Your task to perform on an android device: Open CNN.com Image 0: 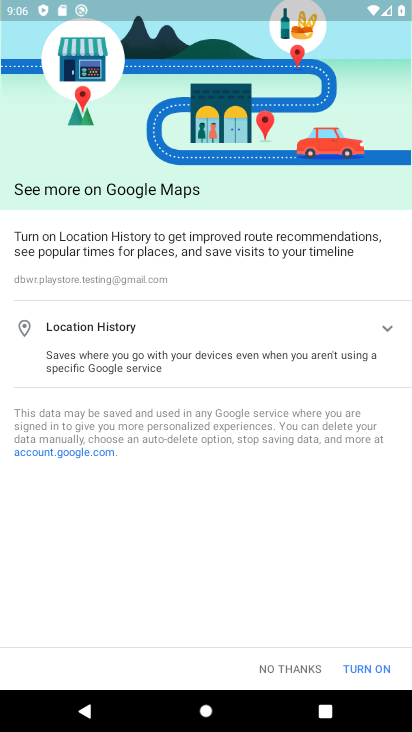
Step 0: press home button
Your task to perform on an android device: Open CNN.com Image 1: 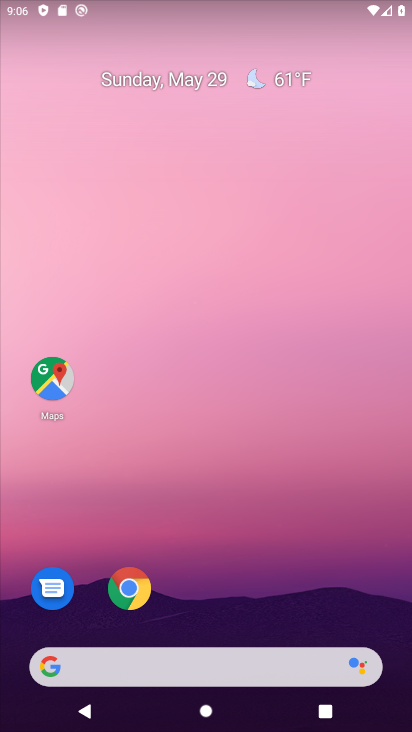
Step 1: drag from (350, 527) to (288, 165)
Your task to perform on an android device: Open CNN.com Image 2: 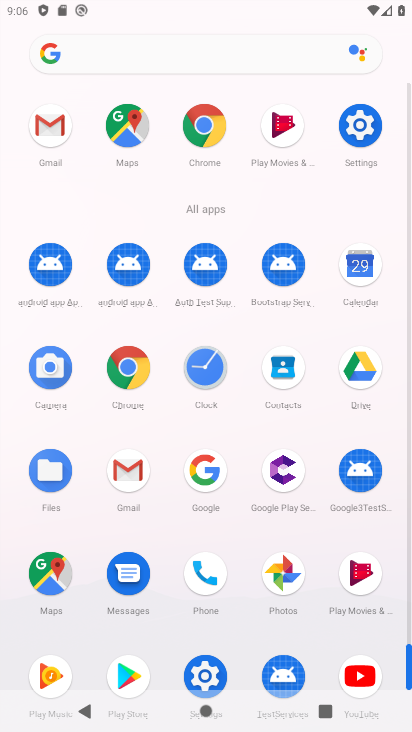
Step 2: click (207, 123)
Your task to perform on an android device: Open CNN.com Image 3: 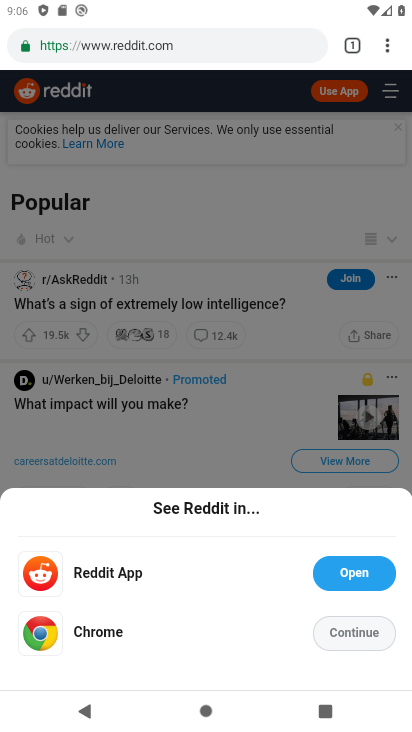
Step 3: click (213, 54)
Your task to perform on an android device: Open CNN.com Image 4: 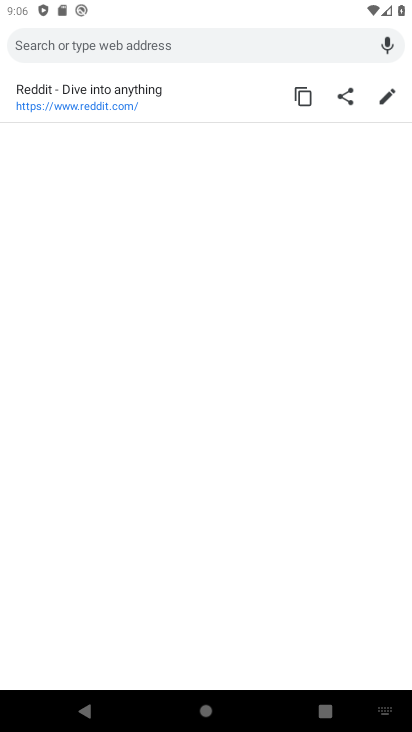
Step 4: type "cnn.com"
Your task to perform on an android device: Open CNN.com Image 5: 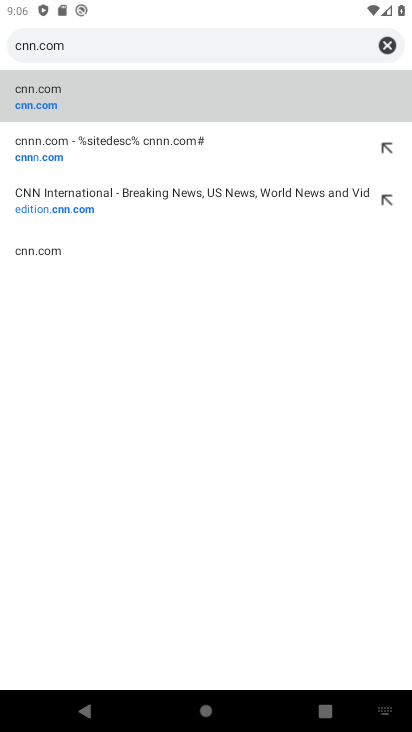
Step 5: click (44, 108)
Your task to perform on an android device: Open CNN.com Image 6: 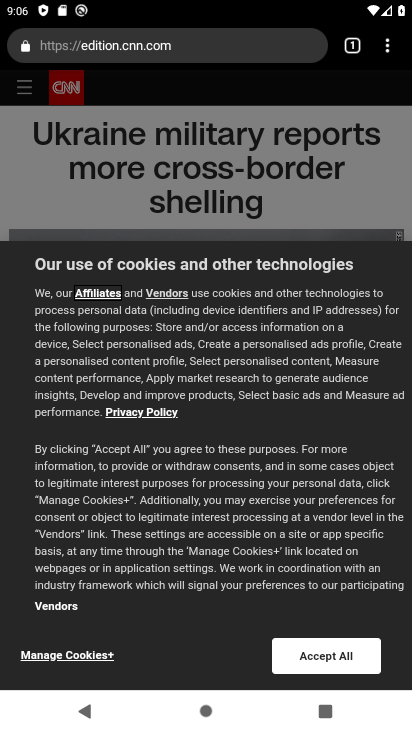
Step 6: task complete